Your task to perform on an android device: Open Google Maps Image 0: 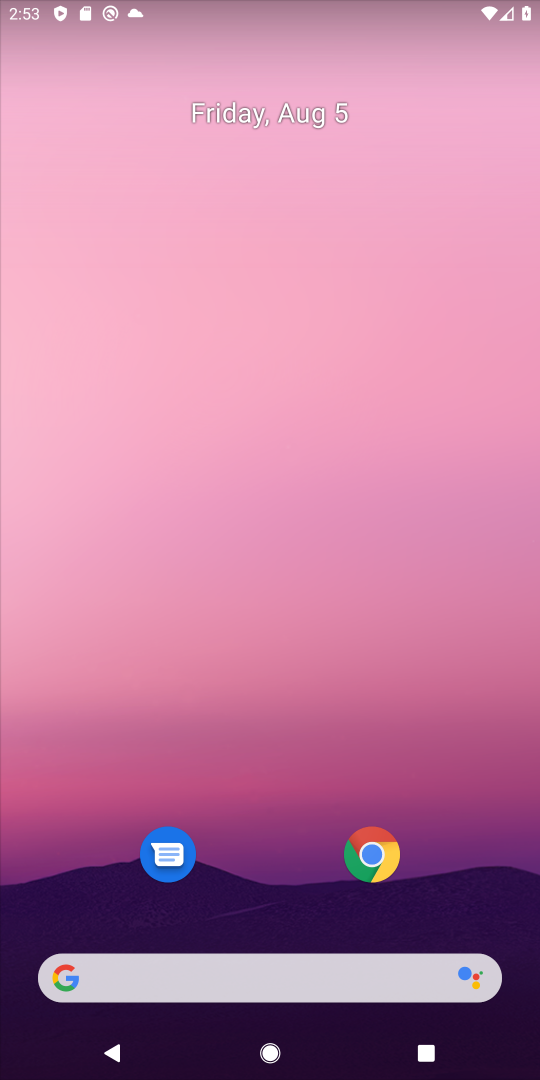
Step 0: drag from (52, 1037) to (316, 350)
Your task to perform on an android device: Open Google Maps Image 1: 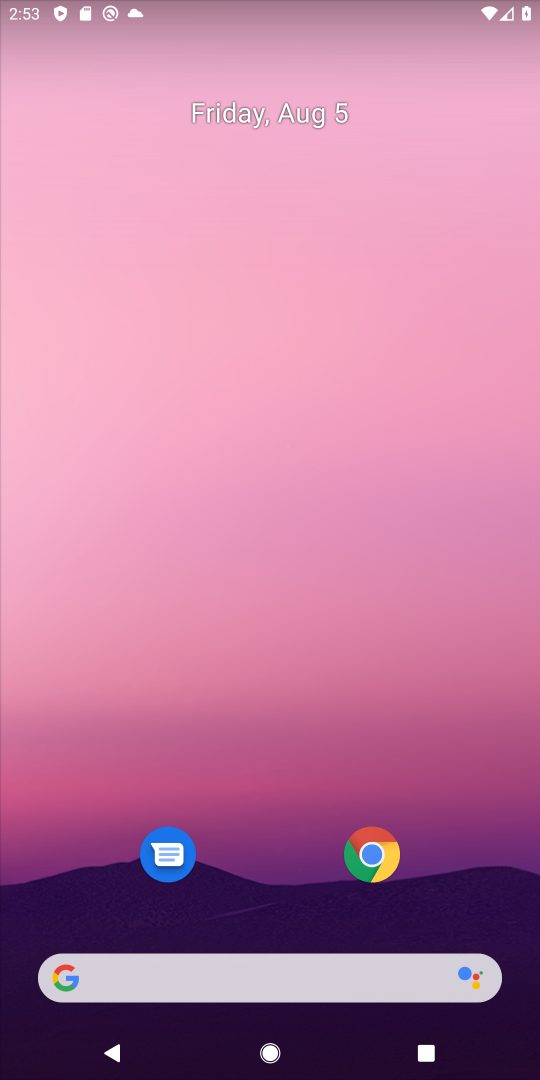
Step 1: click (201, 533)
Your task to perform on an android device: Open Google Maps Image 2: 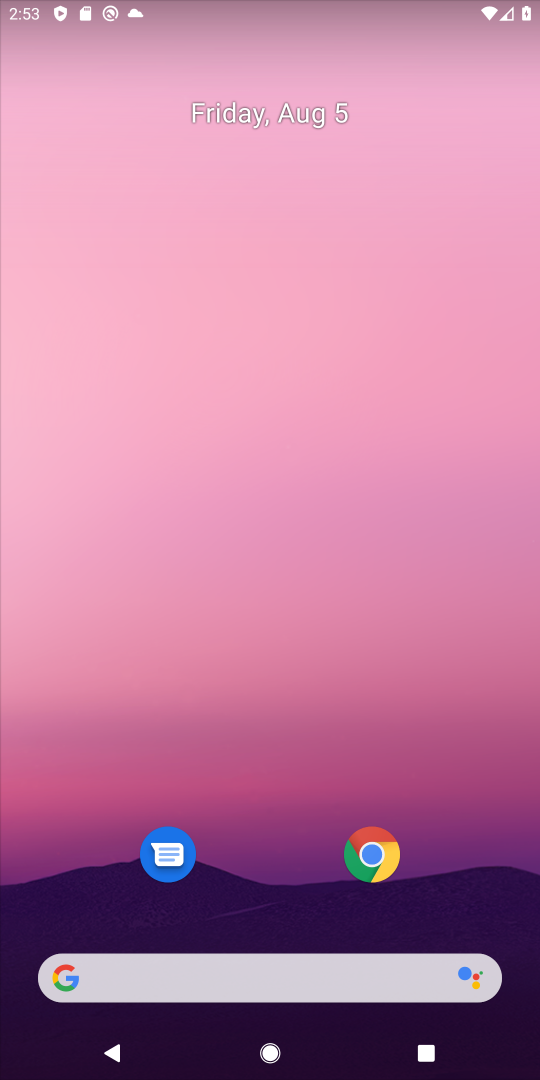
Step 2: drag from (76, 1037) to (362, 477)
Your task to perform on an android device: Open Google Maps Image 3: 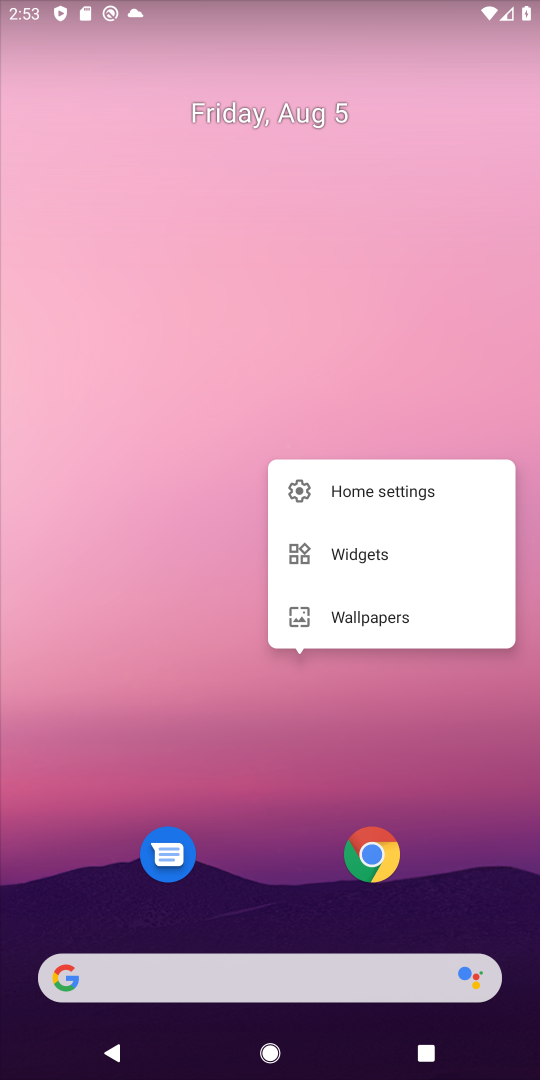
Step 3: click (52, 1057)
Your task to perform on an android device: Open Google Maps Image 4: 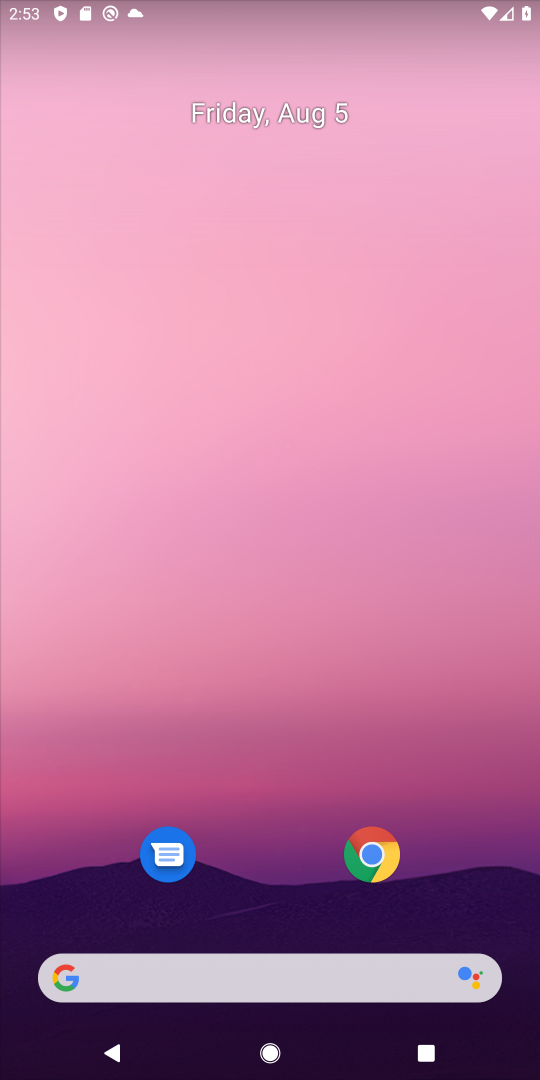
Step 4: drag from (50, 1048) to (453, 206)
Your task to perform on an android device: Open Google Maps Image 5: 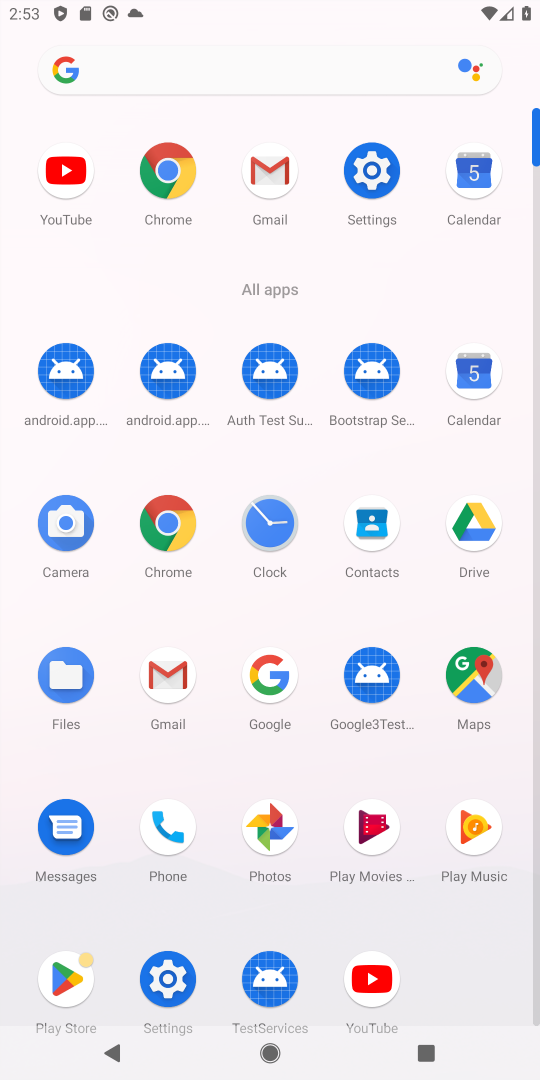
Step 5: click (459, 710)
Your task to perform on an android device: Open Google Maps Image 6: 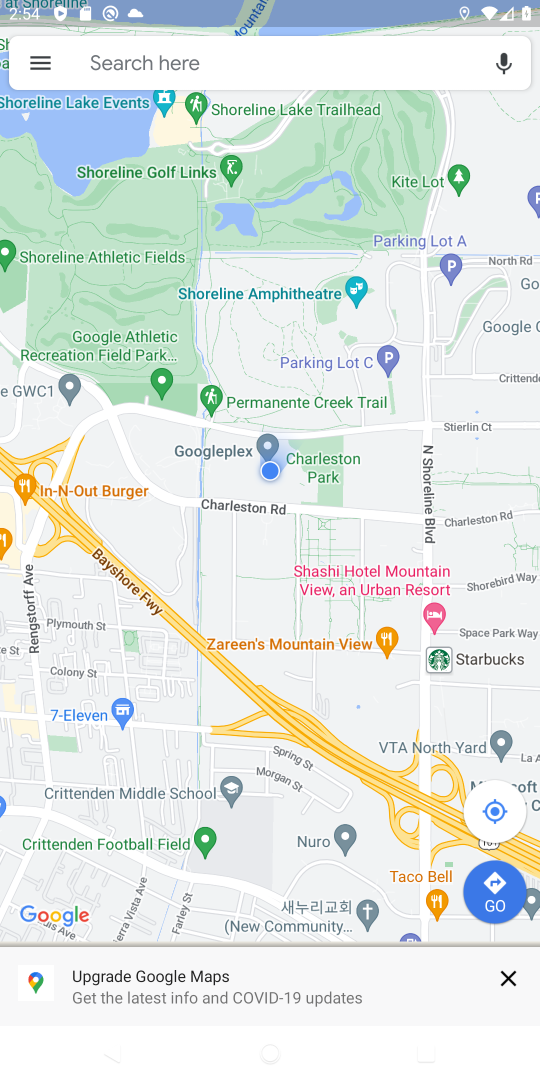
Step 6: task complete